Your task to perform on an android device: Do I have any events tomorrow? Image 0: 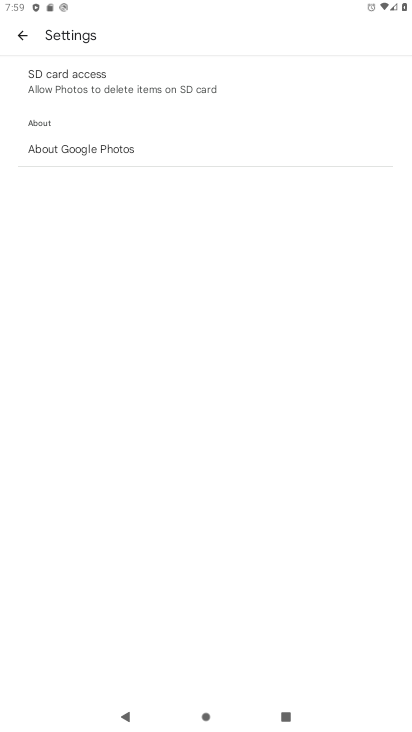
Step 0: press home button
Your task to perform on an android device: Do I have any events tomorrow? Image 1: 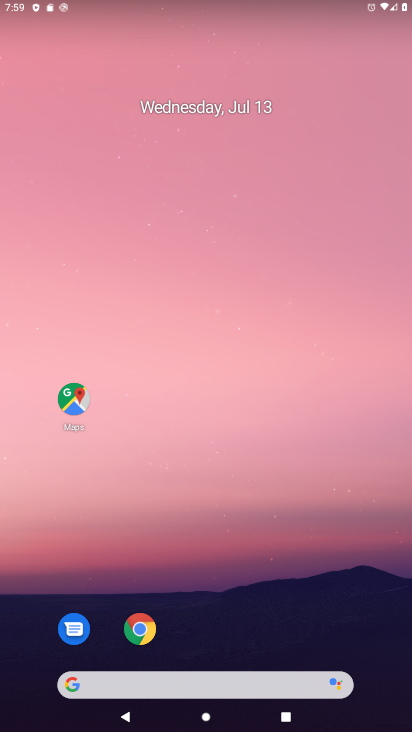
Step 1: drag from (279, 551) to (223, 80)
Your task to perform on an android device: Do I have any events tomorrow? Image 2: 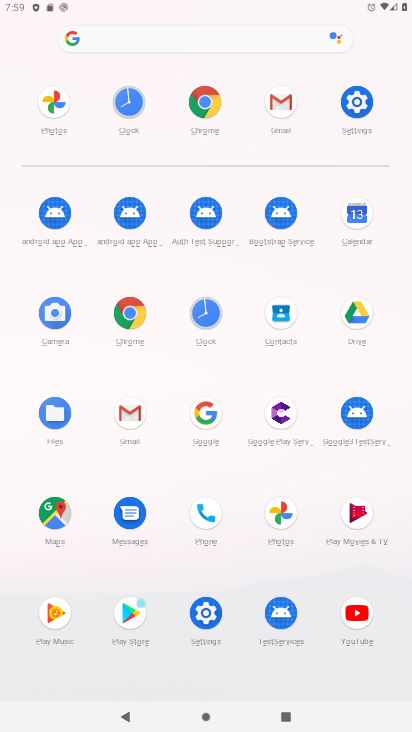
Step 2: click (350, 222)
Your task to perform on an android device: Do I have any events tomorrow? Image 3: 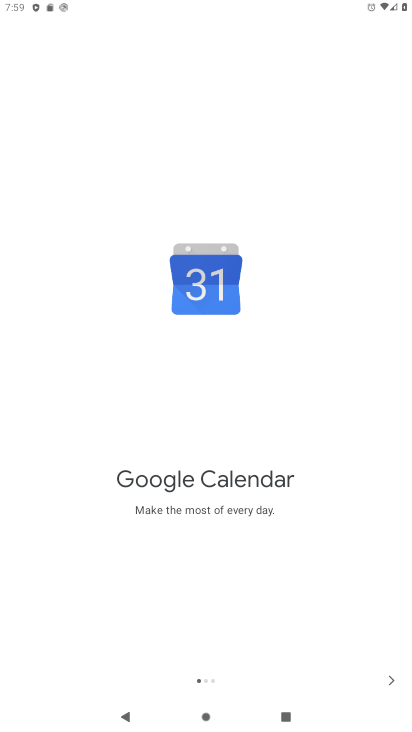
Step 3: click (389, 677)
Your task to perform on an android device: Do I have any events tomorrow? Image 4: 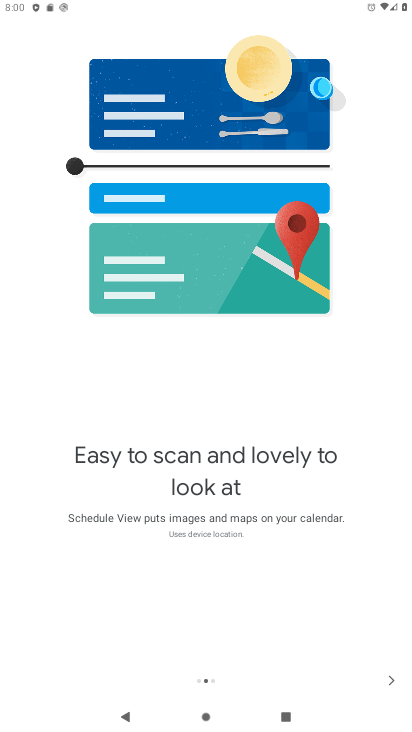
Step 4: click (389, 676)
Your task to perform on an android device: Do I have any events tomorrow? Image 5: 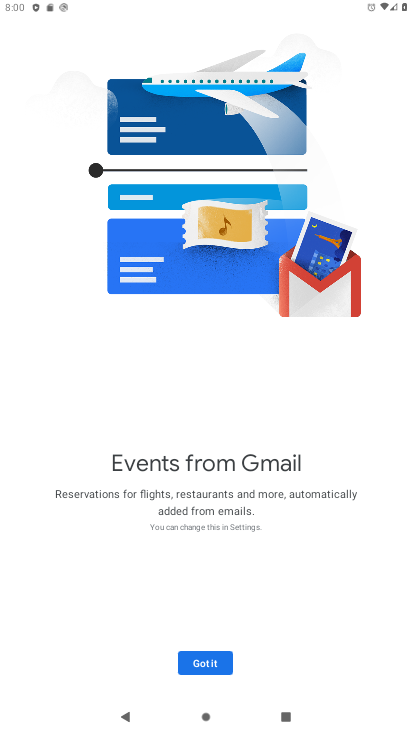
Step 5: click (199, 669)
Your task to perform on an android device: Do I have any events tomorrow? Image 6: 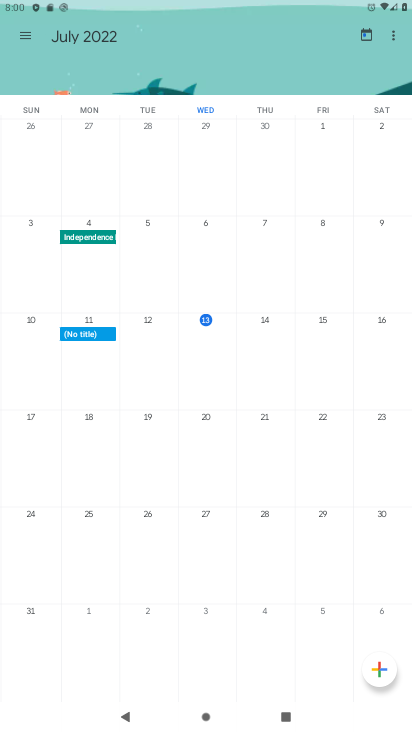
Step 6: click (269, 318)
Your task to perform on an android device: Do I have any events tomorrow? Image 7: 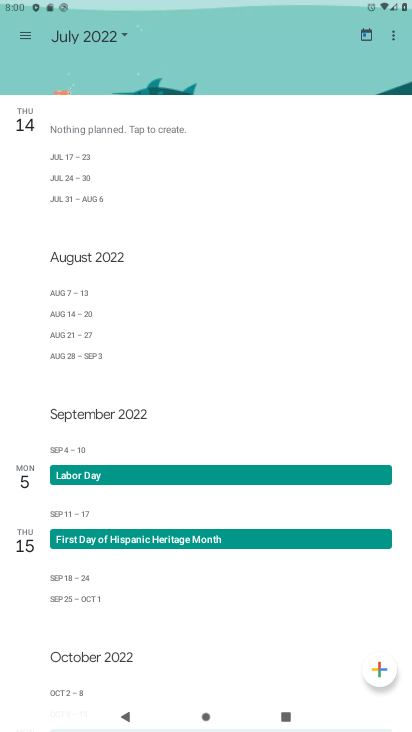
Step 7: task complete